Your task to perform on an android device: add a contact Image 0: 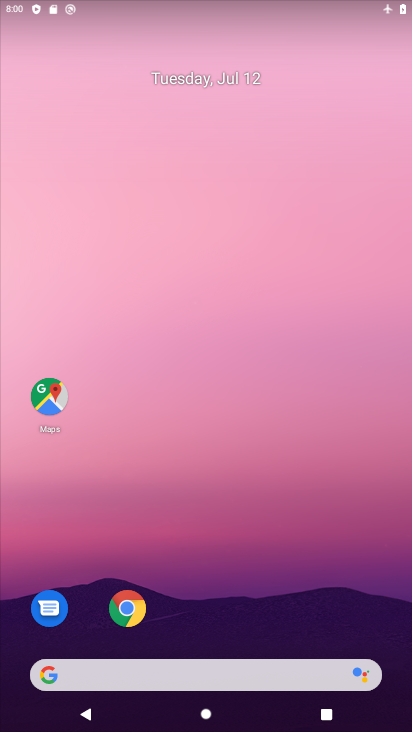
Step 0: drag from (220, 650) to (152, 116)
Your task to perform on an android device: add a contact Image 1: 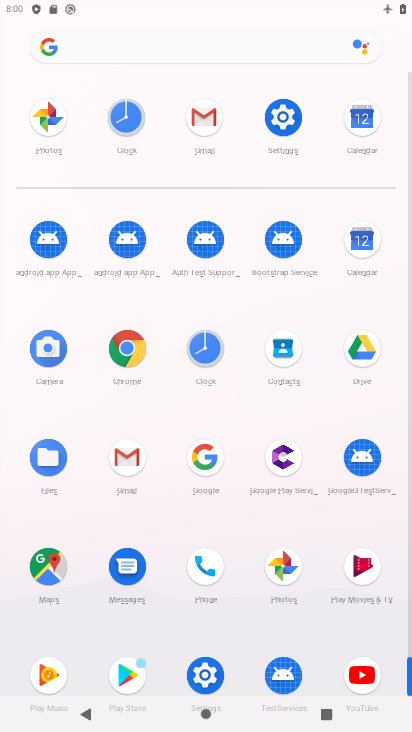
Step 1: click (216, 575)
Your task to perform on an android device: add a contact Image 2: 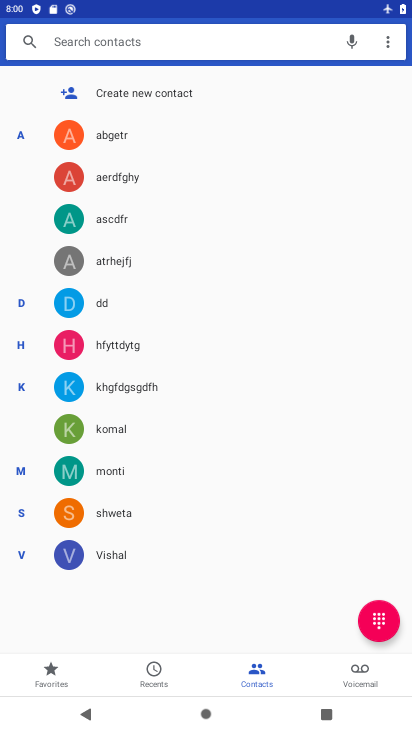
Step 2: click (112, 95)
Your task to perform on an android device: add a contact Image 3: 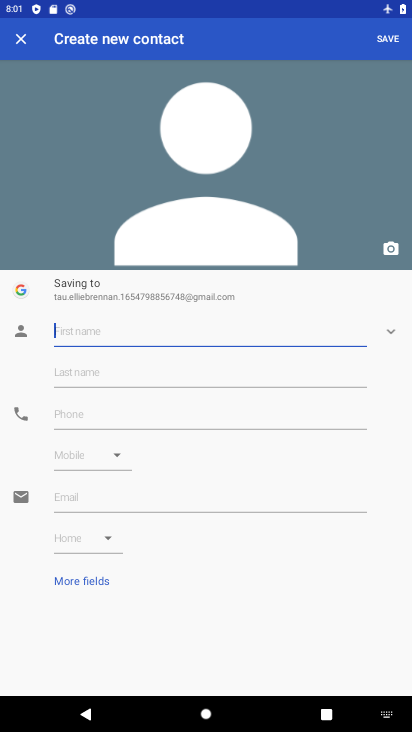
Step 3: type "Text input"
Your task to perform on an android device: add a contact Image 4: 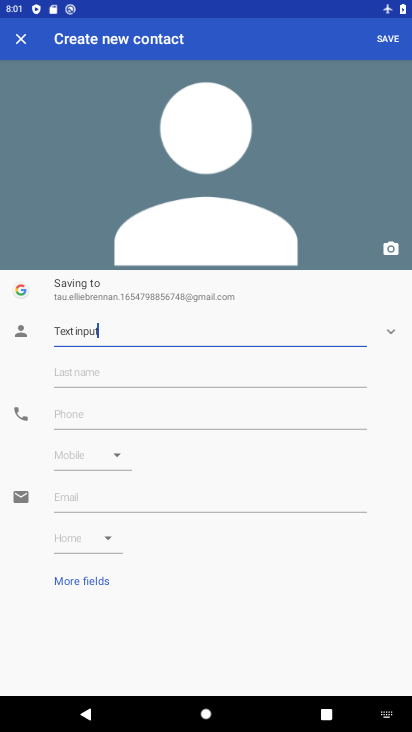
Step 4: type ""
Your task to perform on an android device: add a contact Image 5: 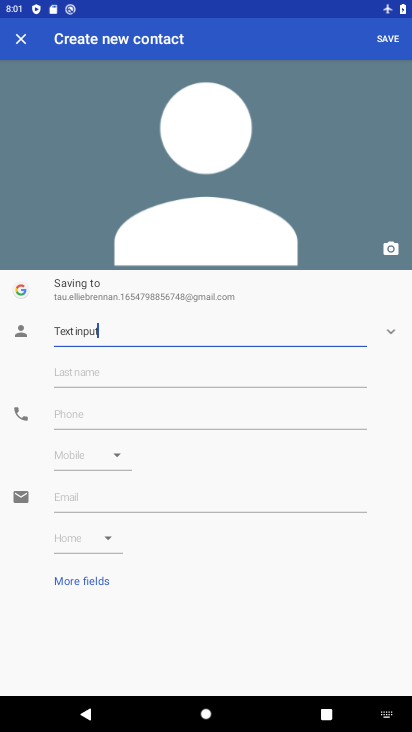
Step 5: click (171, 429)
Your task to perform on an android device: add a contact Image 6: 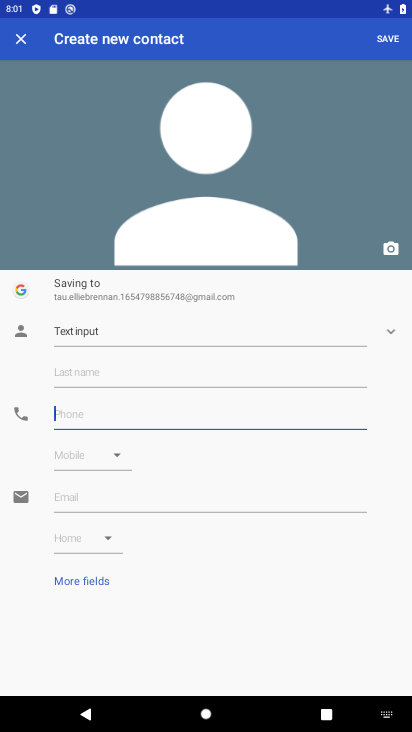
Step 6: type "2020"
Your task to perform on an android device: add a contact Image 7: 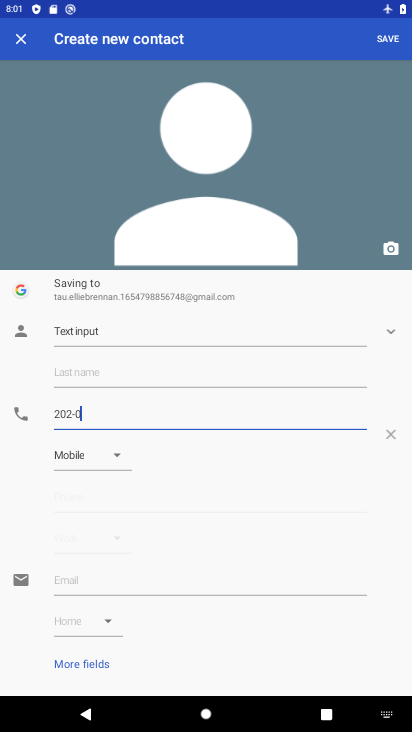
Step 7: type ""
Your task to perform on an android device: add a contact Image 8: 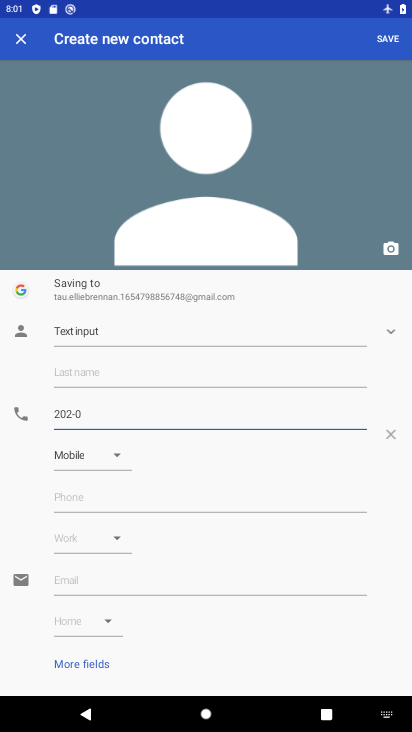
Step 8: click (381, 39)
Your task to perform on an android device: add a contact Image 9: 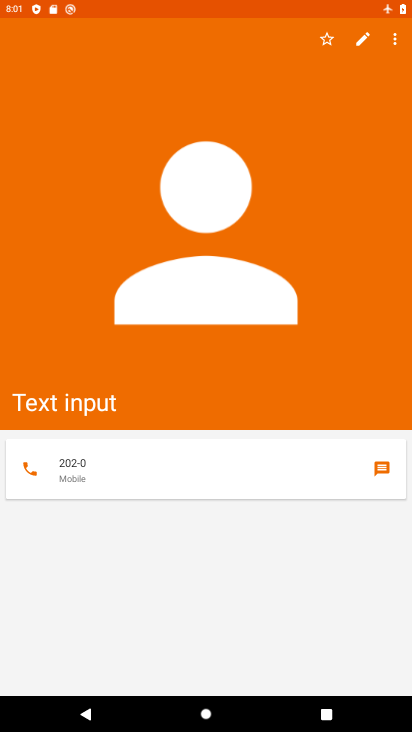
Step 9: task complete